Your task to perform on an android device: set an alarm Image 0: 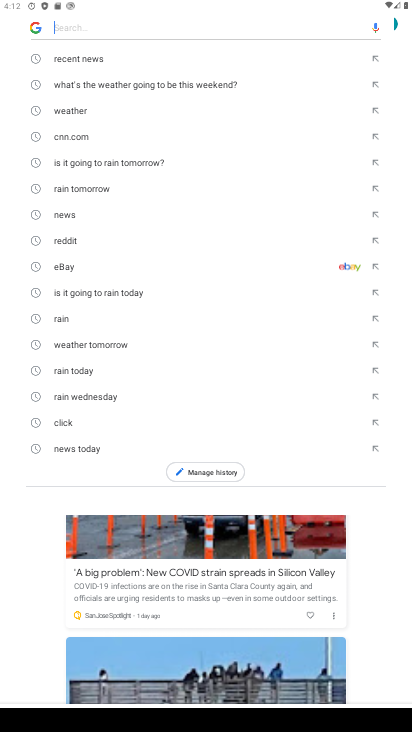
Step 0: press home button
Your task to perform on an android device: set an alarm Image 1: 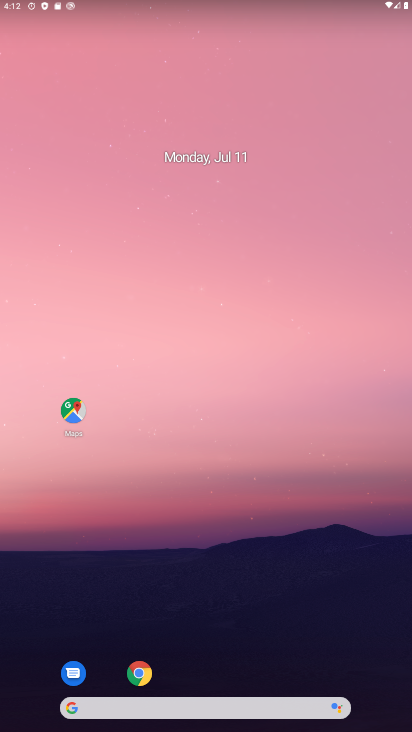
Step 1: drag from (249, 619) to (316, 92)
Your task to perform on an android device: set an alarm Image 2: 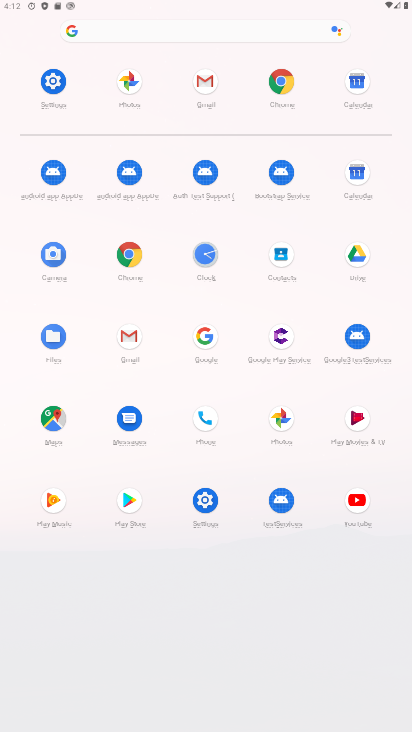
Step 2: click (206, 258)
Your task to perform on an android device: set an alarm Image 3: 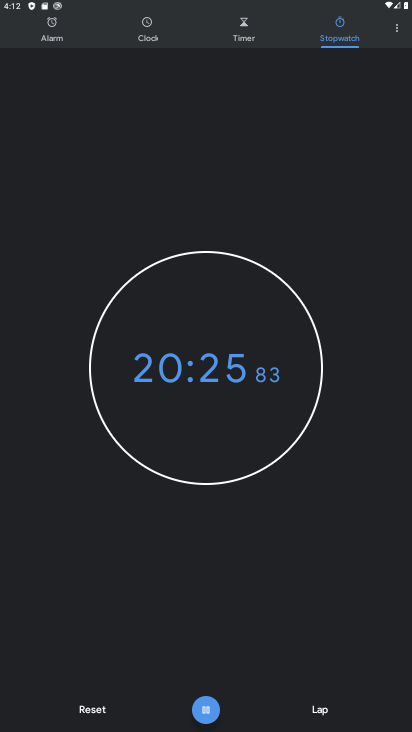
Step 3: click (51, 27)
Your task to perform on an android device: set an alarm Image 4: 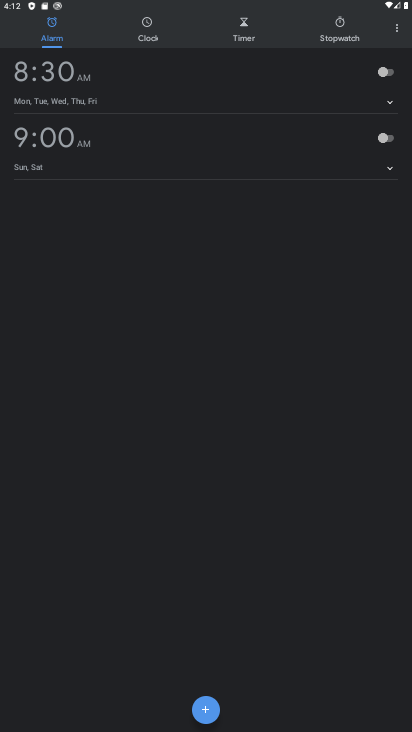
Step 4: click (387, 74)
Your task to perform on an android device: set an alarm Image 5: 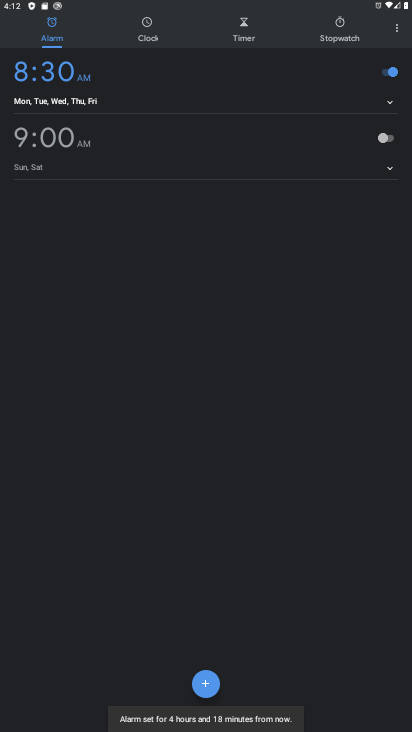
Step 5: click (84, 84)
Your task to perform on an android device: set an alarm Image 6: 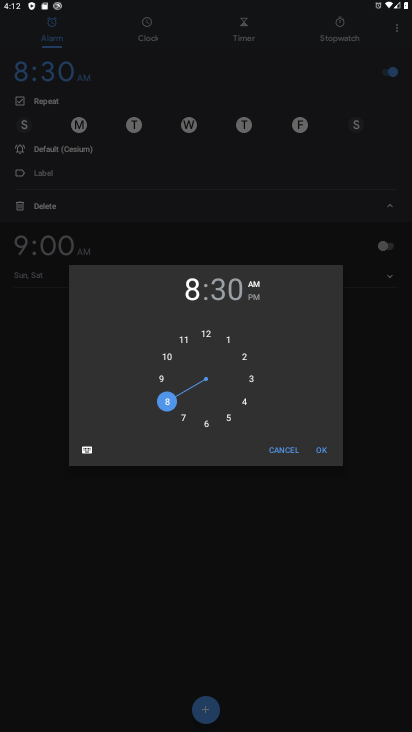
Step 6: click (208, 418)
Your task to perform on an android device: set an alarm Image 7: 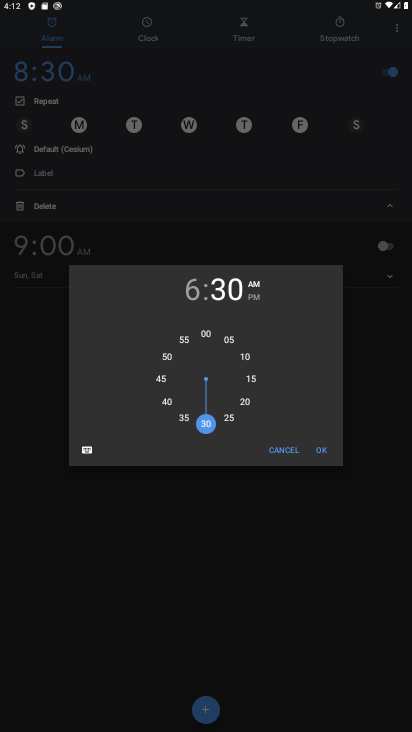
Step 7: click (204, 422)
Your task to perform on an android device: set an alarm Image 8: 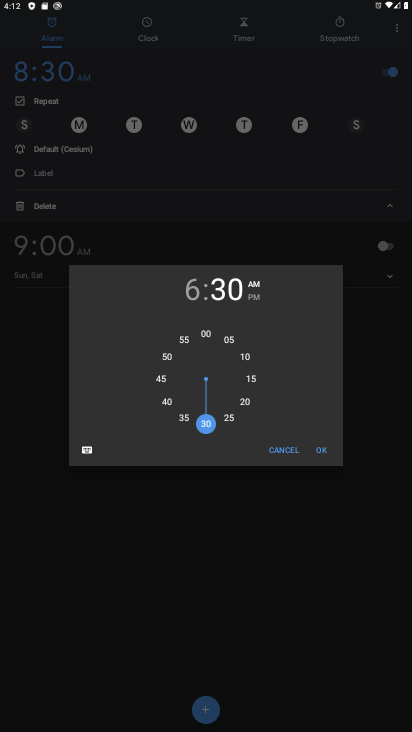
Step 8: click (316, 443)
Your task to perform on an android device: set an alarm Image 9: 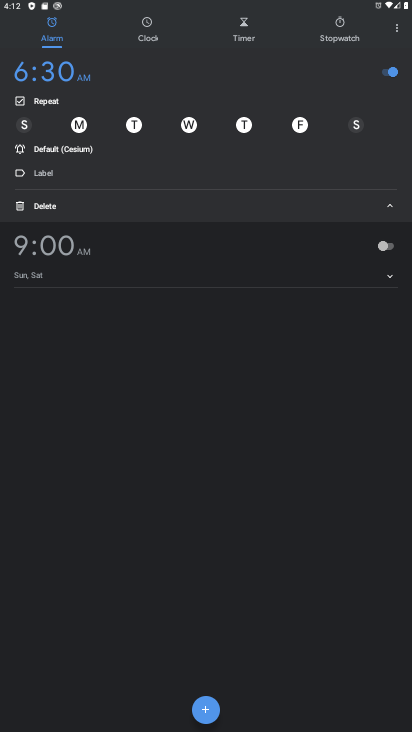
Step 9: task complete